Your task to perform on an android device: change text size in settings app Image 0: 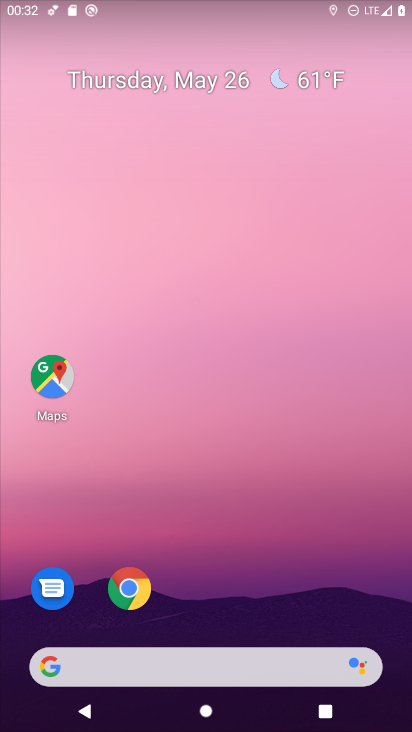
Step 0: drag from (218, 576) to (99, 222)
Your task to perform on an android device: change text size in settings app Image 1: 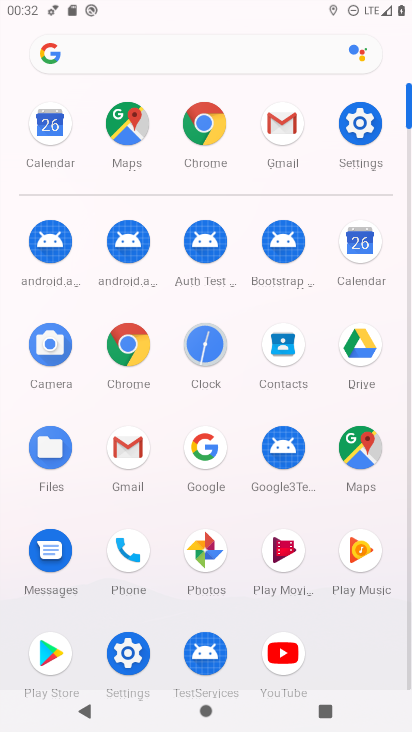
Step 1: click (367, 113)
Your task to perform on an android device: change text size in settings app Image 2: 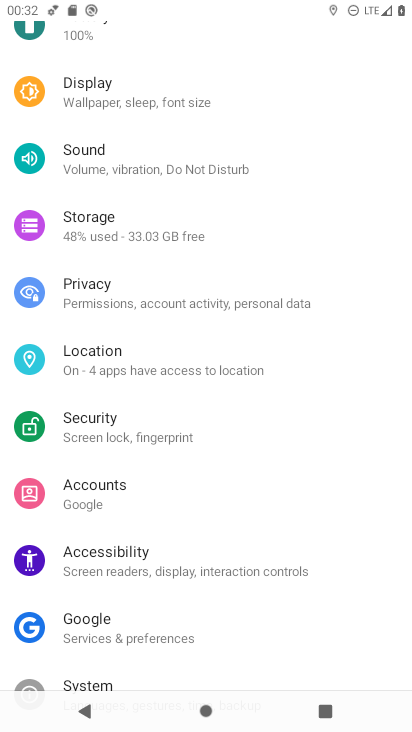
Step 2: click (83, 90)
Your task to perform on an android device: change text size in settings app Image 3: 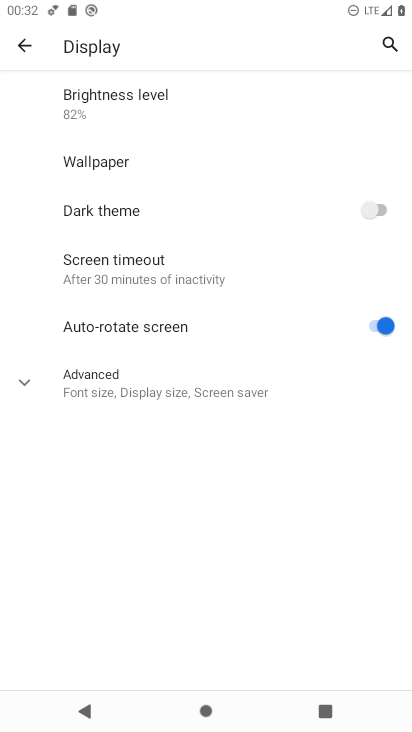
Step 3: click (87, 382)
Your task to perform on an android device: change text size in settings app Image 4: 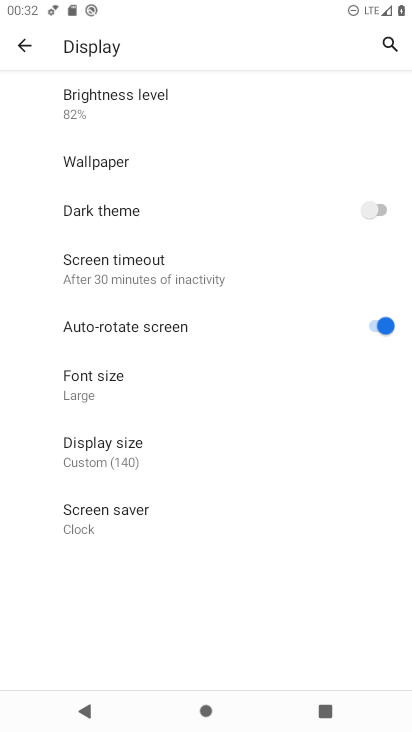
Step 4: click (82, 389)
Your task to perform on an android device: change text size in settings app Image 5: 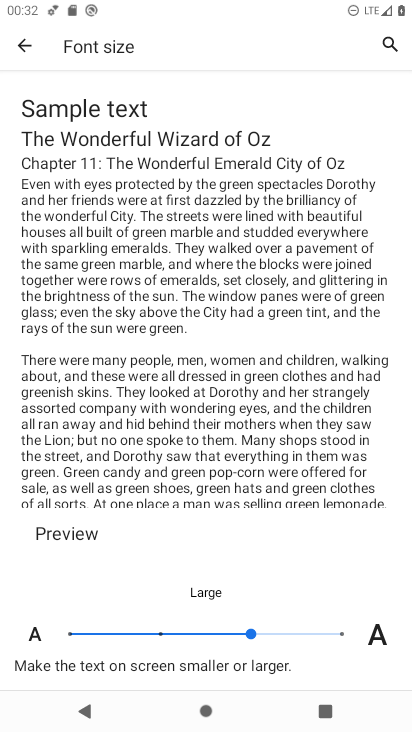
Step 5: click (178, 632)
Your task to perform on an android device: change text size in settings app Image 6: 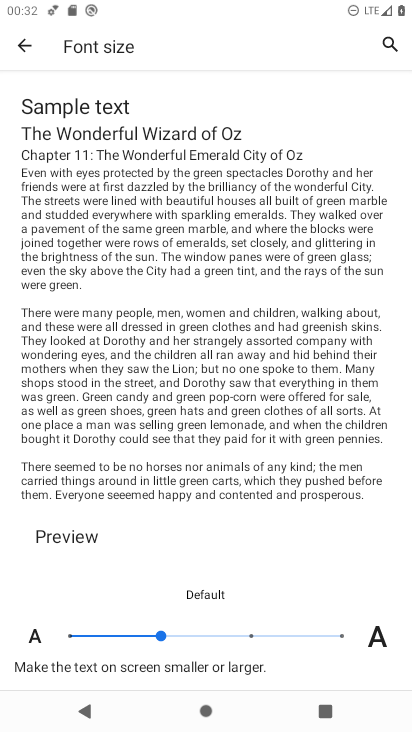
Step 6: task complete